Your task to perform on an android device: Do I have any events tomorrow? Image 0: 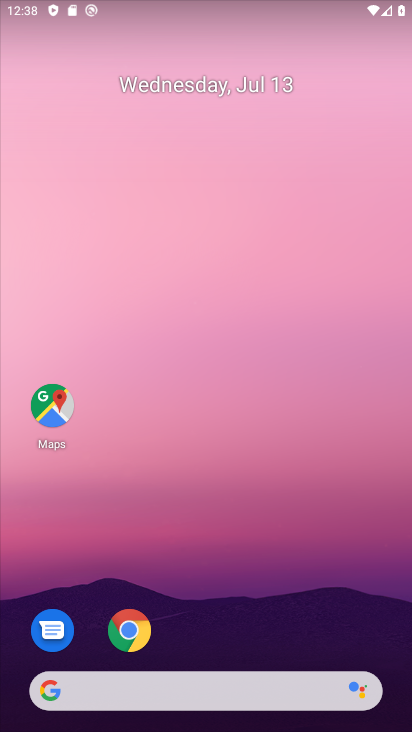
Step 0: drag from (231, 652) to (187, 103)
Your task to perform on an android device: Do I have any events tomorrow? Image 1: 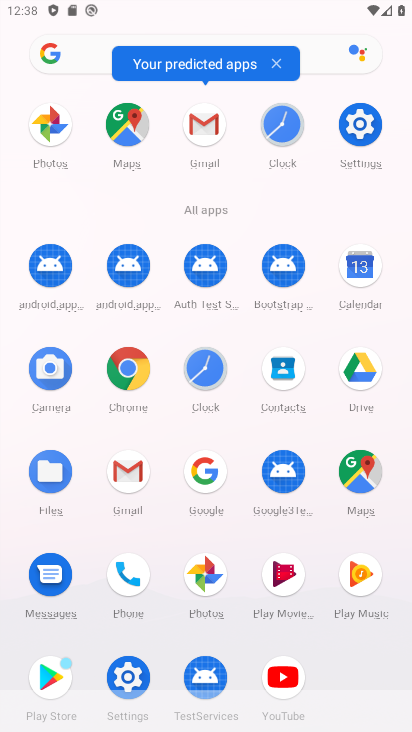
Step 1: click (366, 280)
Your task to perform on an android device: Do I have any events tomorrow? Image 2: 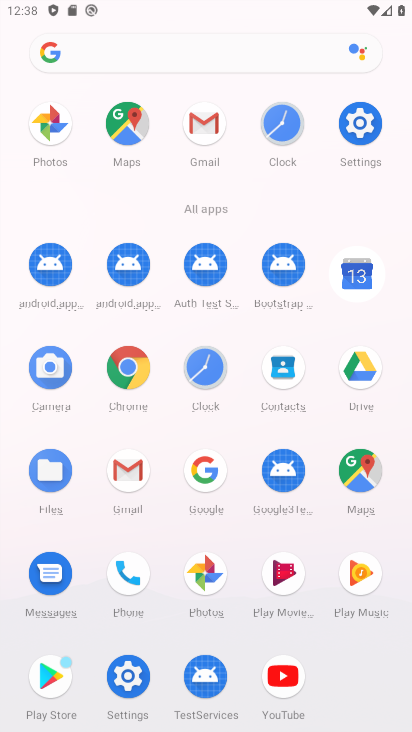
Step 2: click (360, 271)
Your task to perform on an android device: Do I have any events tomorrow? Image 3: 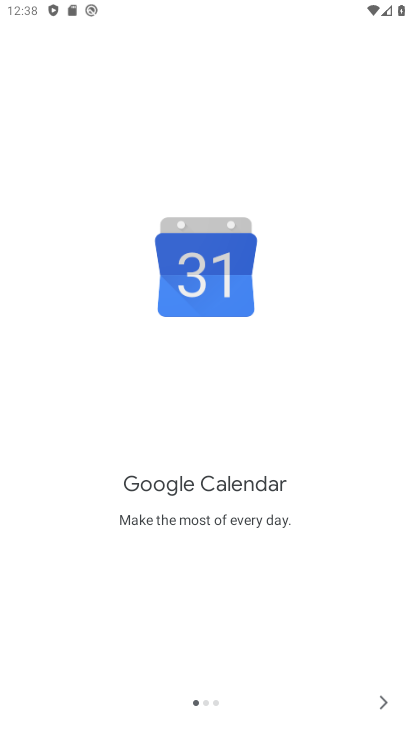
Step 3: click (381, 714)
Your task to perform on an android device: Do I have any events tomorrow? Image 4: 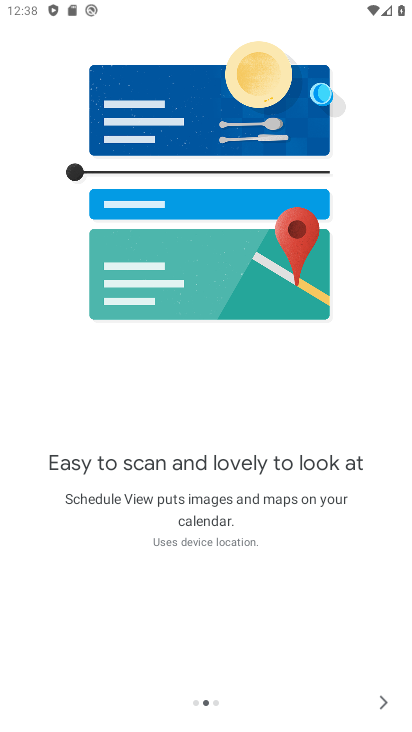
Step 4: click (383, 706)
Your task to perform on an android device: Do I have any events tomorrow? Image 5: 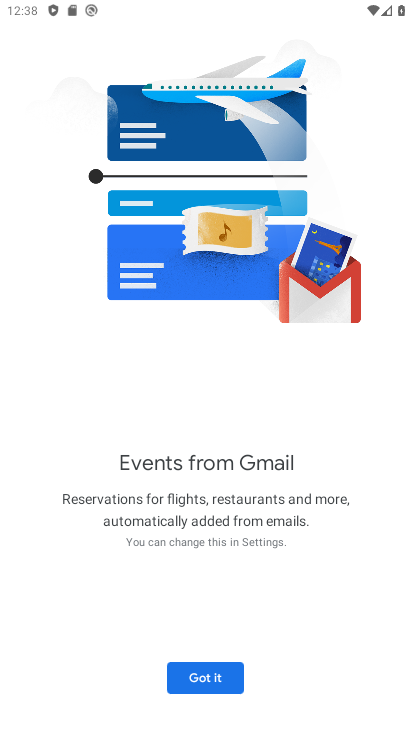
Step 5: click (217, 682)
Your task to perform on an android device: Do I have any events tomorrow? Image 6: 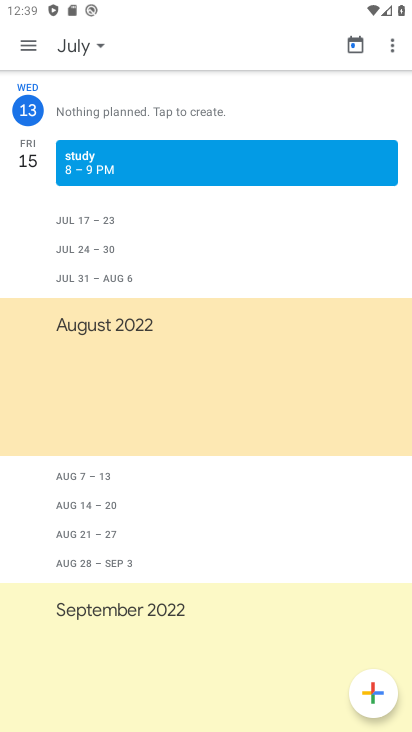
Step 6: click (77, 54)
Your task to perform on an android device: Do I have any events tomorrow? Image 7: 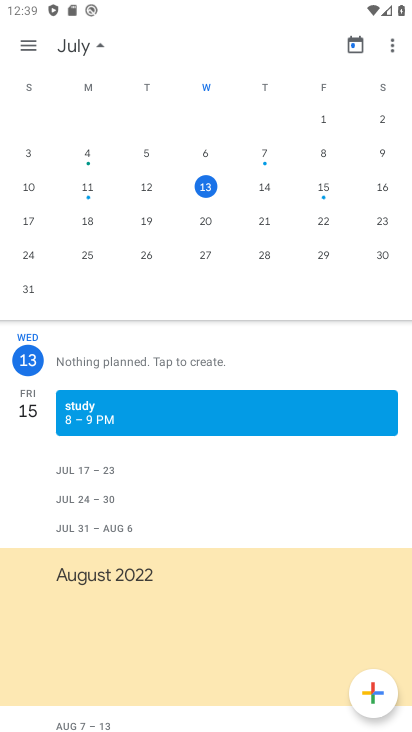
Step 7: click (250, 172)
Your task to perform on an android device: Do I have any events tomorrow? Image 8: 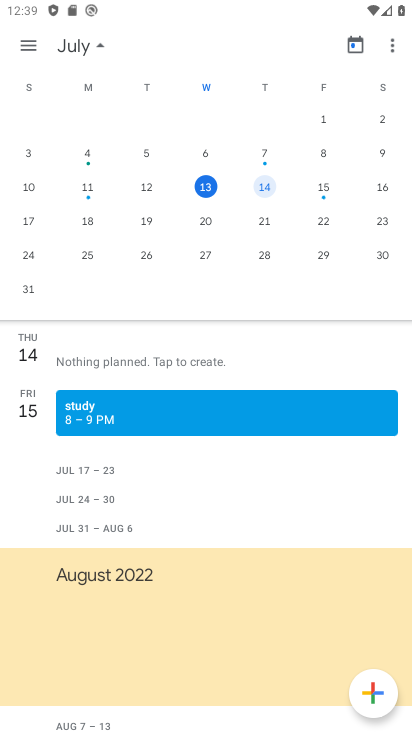
Step 8: task complete